Your task to perform on an android device: Open settings on Google Maps Image 0: 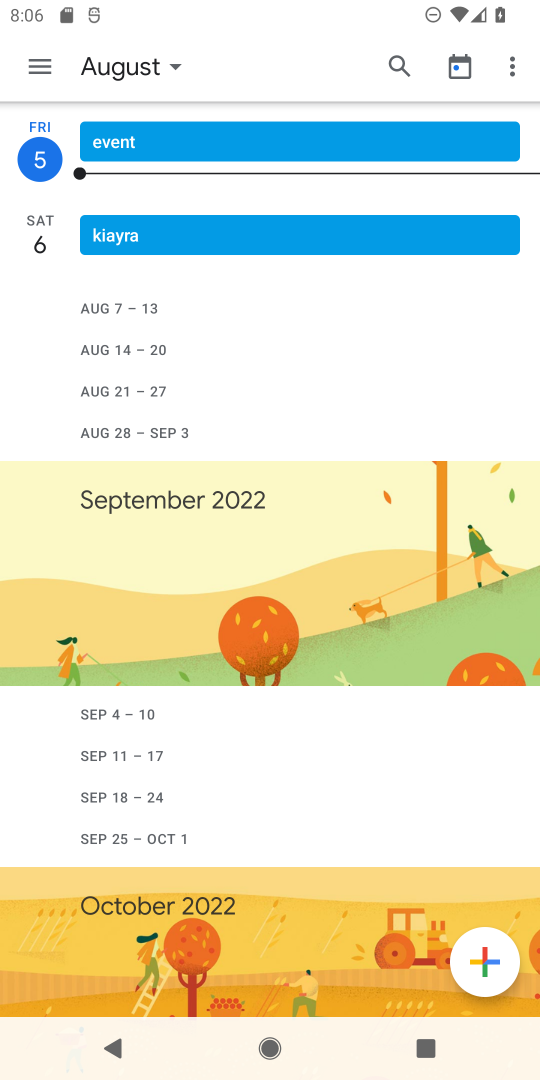
Step 0: press home button
Your task to perform on an android device: Open settings on Google Maps Image 1: 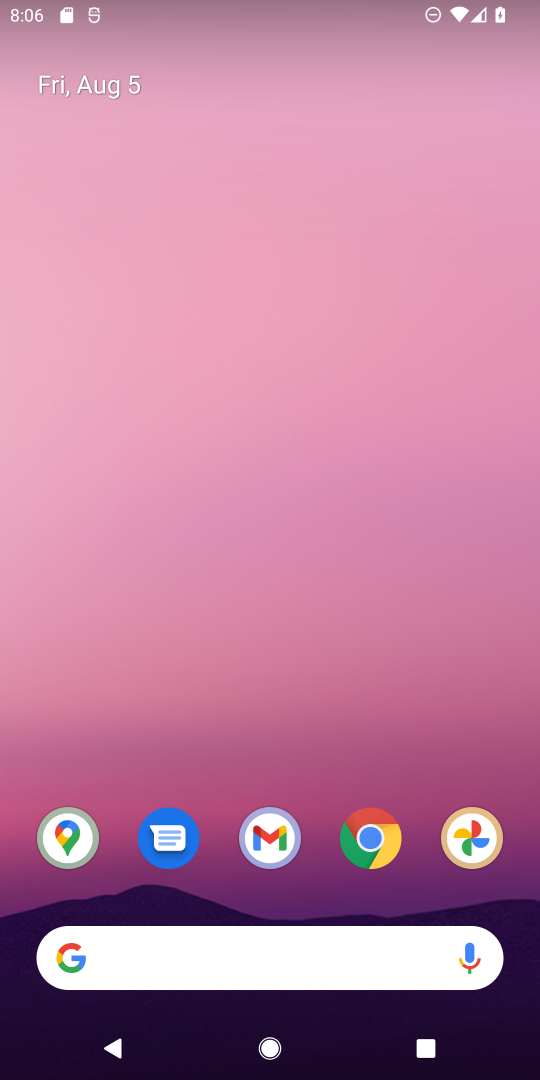
Step 1: click (60, 846)
Your task to perform on an android device: Open settings on Google Maps Image 2: 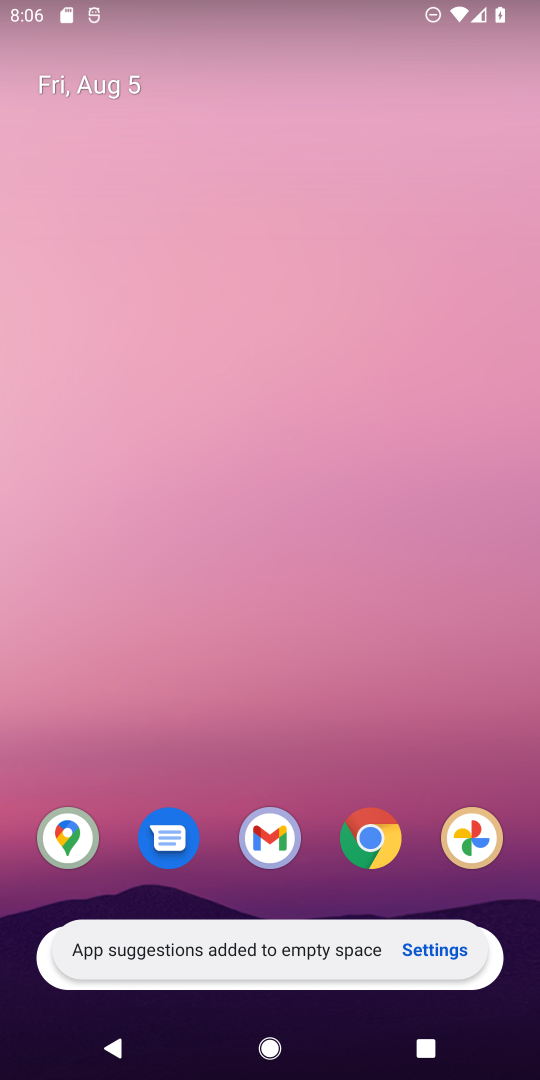
Step 2: click (60, 846)
Your task to perform on an android device: Open settings on Google Maps Image 3: 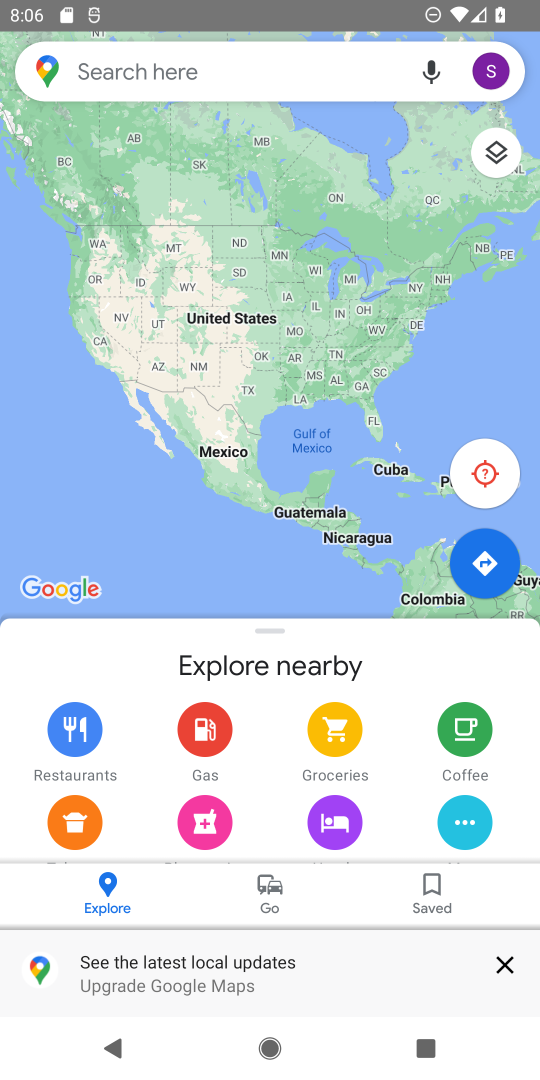
Step 3: click (486, 79)
Your task to perform on an android device: Open settings on Google Maps Image 4: 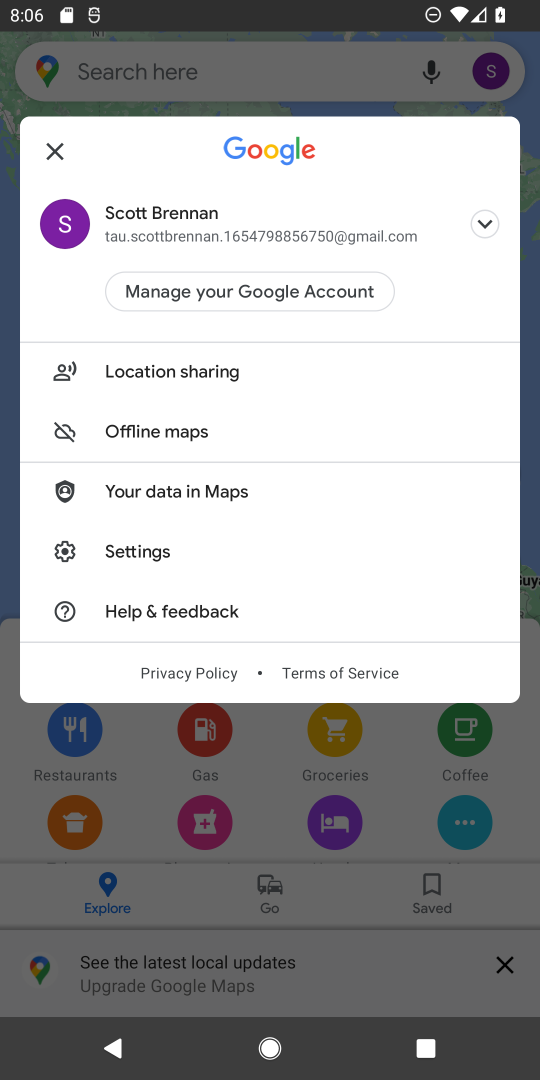
Step 4: click (158, 548)
Your task to perform on an android device: Open settings on Google Maps Image 5: 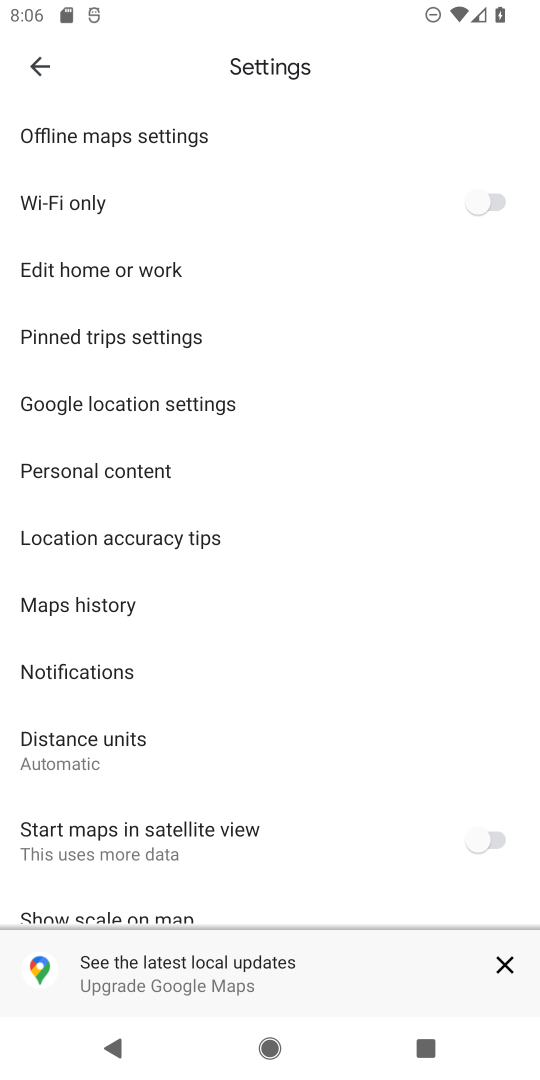
Step 5: task complete